Your task to perform on an android device: Search for the best rated tool bag on Lowe's. Image 0: 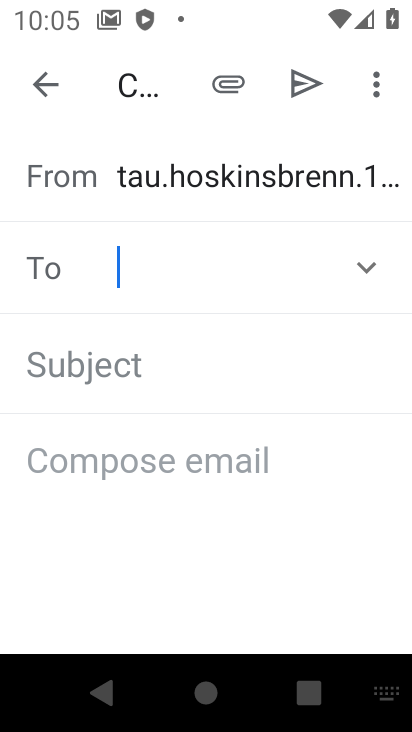
Step 0: press home button
Your task to perform on an android device: Search for the best rated tool bag on Lowe's. Image 1: 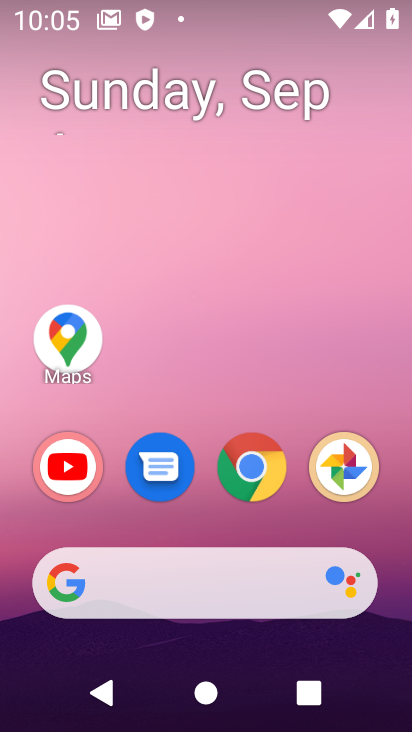
Step 1: click (257, 468)
Your task to perform on an android device: Search for the best rated tool bag on Lowe's. Image 2: 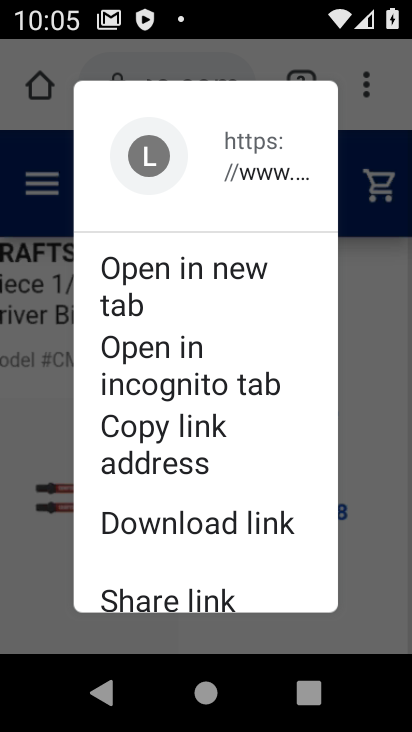
Step 2: click (380, 274)
Your task to perform on an android device: Search for the best rated tool bag on Lowe's. Image 3: 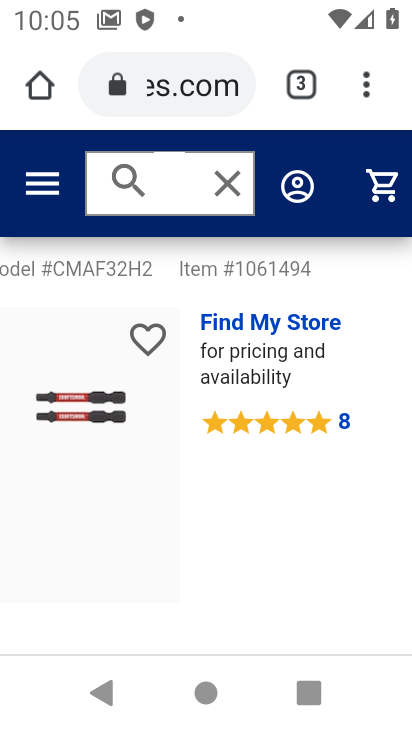
Step 3: click (164, 81)
Your task to perform on an android device: Search for the best rated tool bag on Lowe's. Image 4: 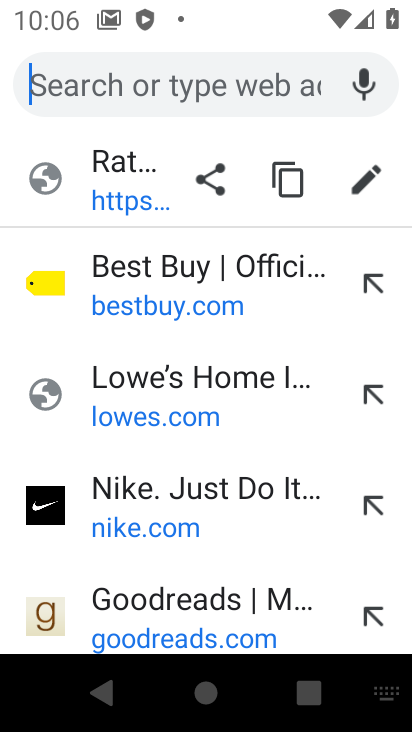
Step 4: click (172, 424)
Your task to perform on an android device: Search for the best rated tool bag on Lowe's. Image 5: 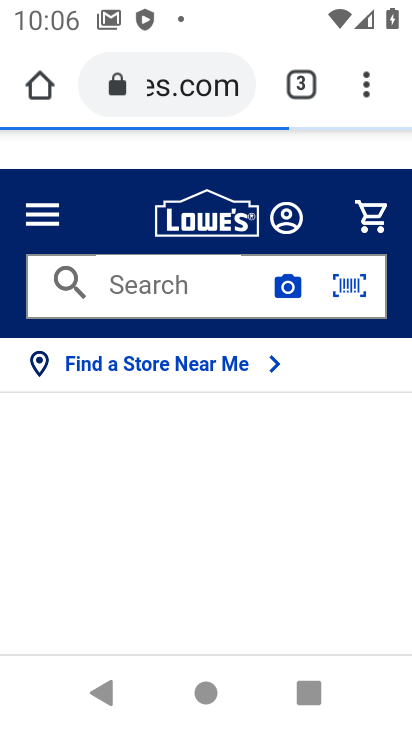
Step 5: click (199, 289)
Your task to perform on an android device: Search for the best rated tool bag on Lowe's. Image 6: 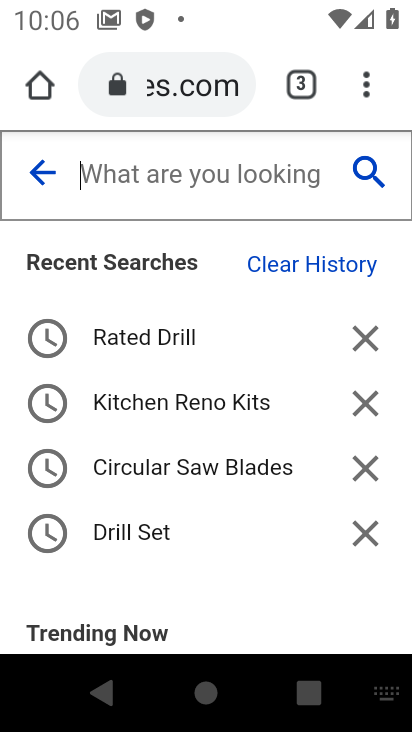
Step 6: type "tool bag"
Your task to perform on an android device: Search for the best rated tool bag on Lowe's. Image 7: 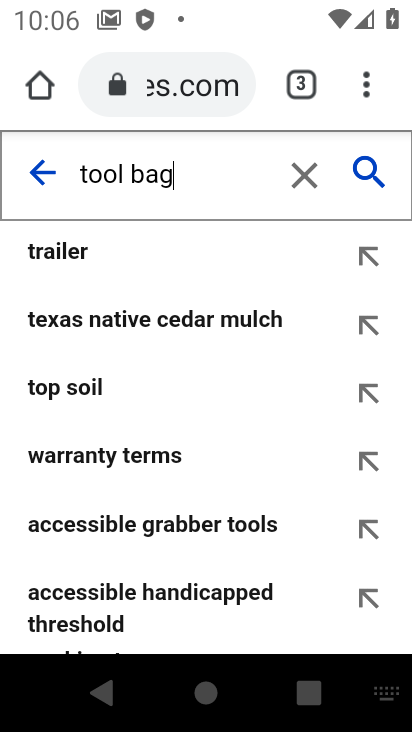
Step 7: type ""
Your task to perform on an android device: Search for the best rated tool bag on Lowe's. Image 8: 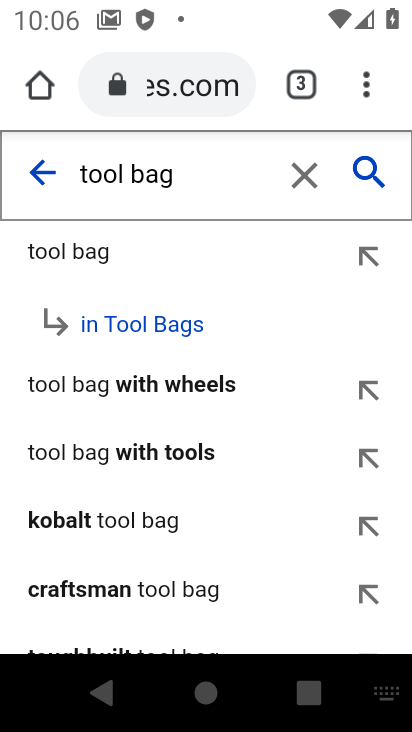
Step 8: click (142, 318)
Your task to perform on an android device: Search for the best rated tool bag on Lowe's. Image 9: 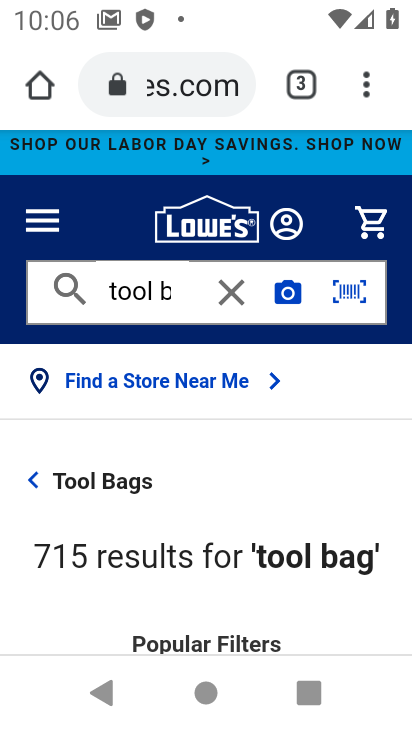
Step 9: drag from (299, 577) to (336, 257)
Your task to perform on an android device: Search for the best rated tool bag on Lowe's. Image 10: 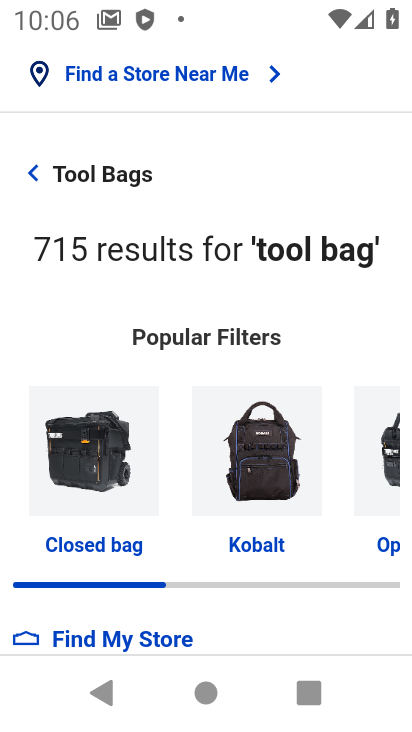
Step 10: click (177, 334)
Your task to perform on an android device: Search for the best rated tool bag on Lowe's. Image 11: 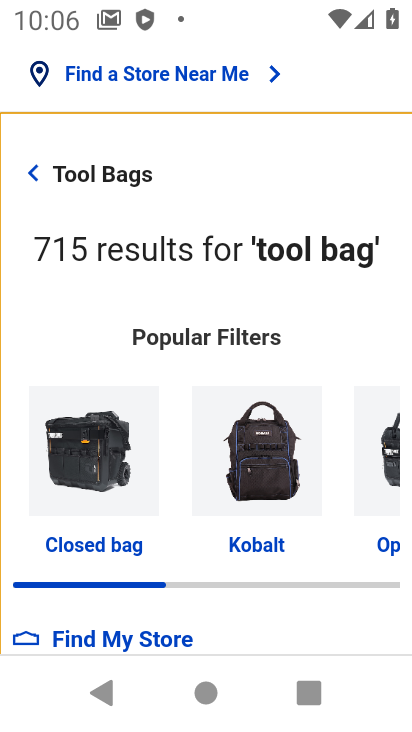
Step 11: drag from (295, 511) to (326, 152)
Your task to perform on an android device: Search for the best rated tool bag on Lowe's. Image 12: 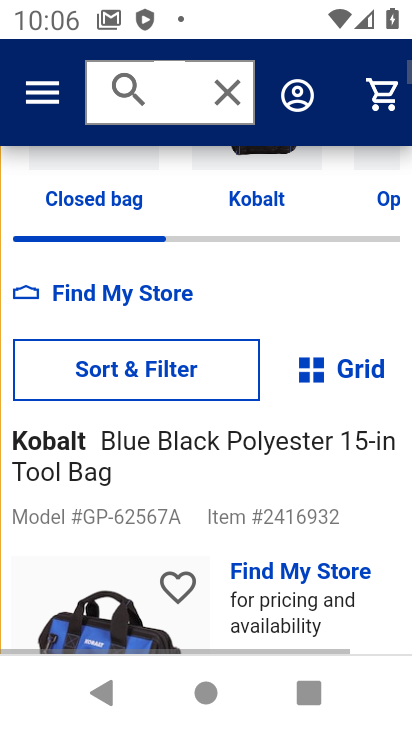
Step 12: click (166, 371)
Your task to perform on an android device: Search for the best rated tool bag on Lowe's. Image 13: 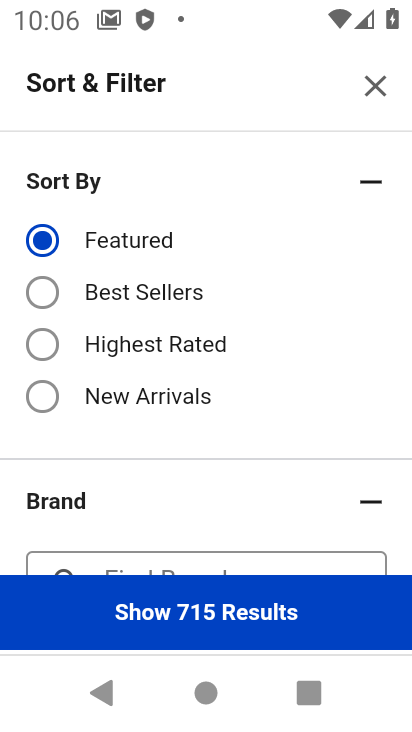
Step 13: click (48, 340)
Your task to perform on an android device: Search for the best rated tool bag on Lowe's. Image 14: 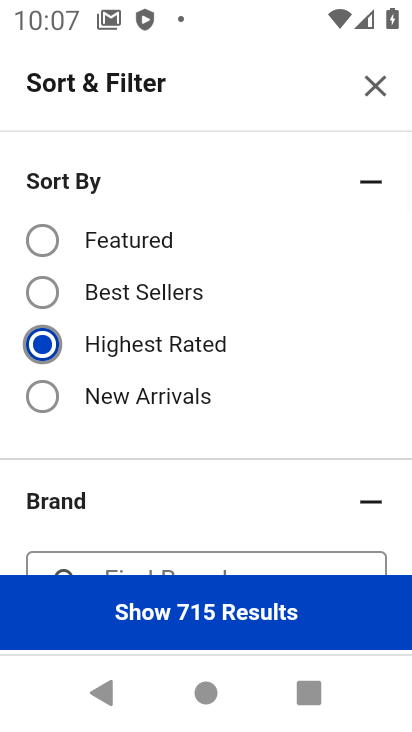
Step 14: drag from (268, 460) to (279, 164)
Your task to perform on an android device: Search for the best rated tool bag on Lowe's. Image 15: 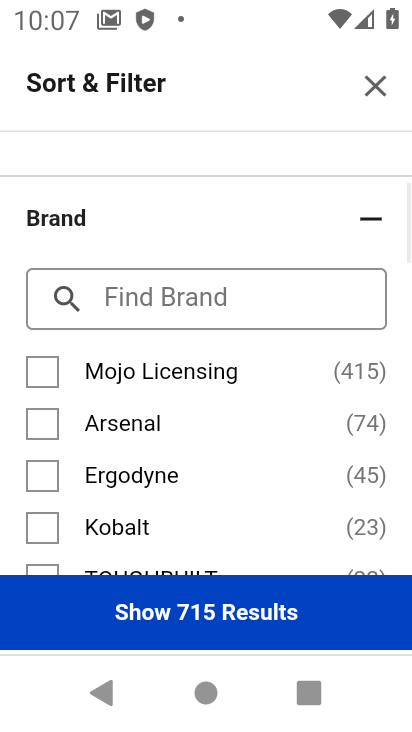
Step 15: drag from (251, 451) to (218, 66)
Your task to perform on an android device: Search for the best rated tool bag on Lowe's. Image 16: 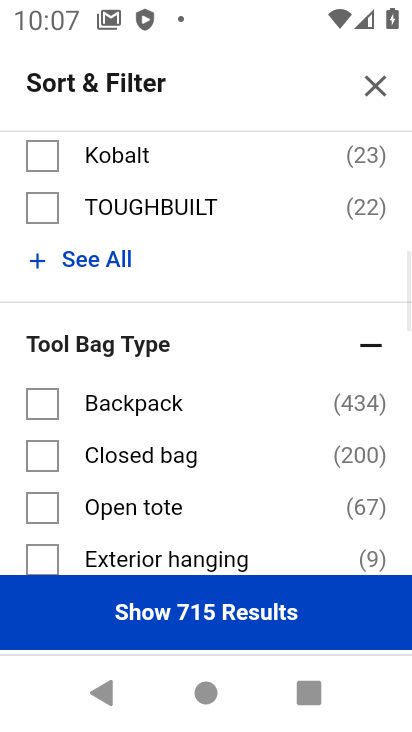
Step 16: drag from (206, 511) to (177, 164)
Your task to perform on an android device: Search for the best rated tool bag on Lowe's. Image 17: 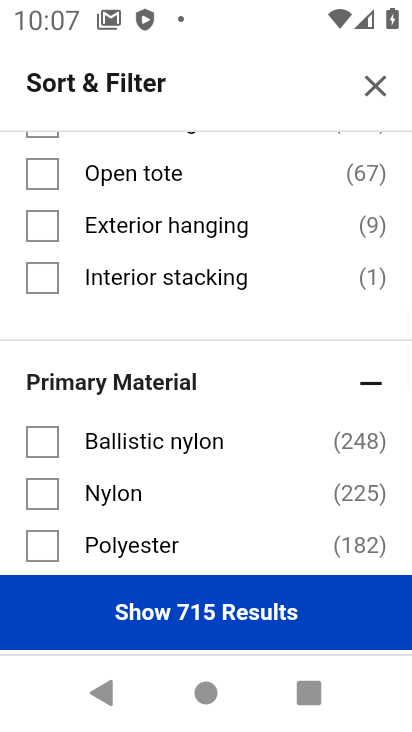
Step 17: drag from (213, 516) to (193, 187)
Your task to perform on an android device: Search for the best rated tool bag on Lowe's. Image 18: 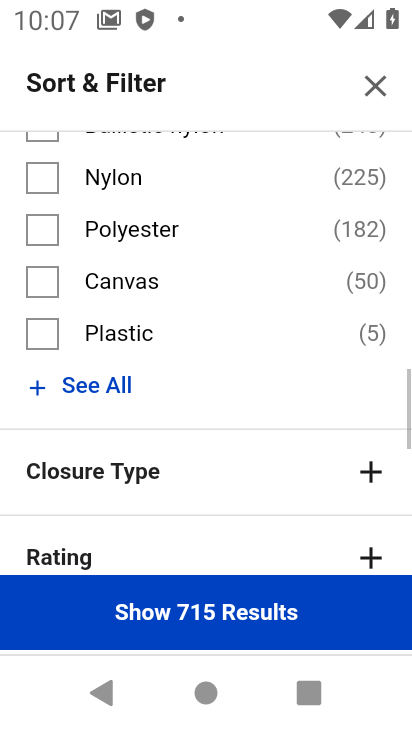
Step 18: drag from (218, 504) to (204, 169)
Your task to perform on an android device: Search for the best rated tool bag on Lowe's. Image 19: 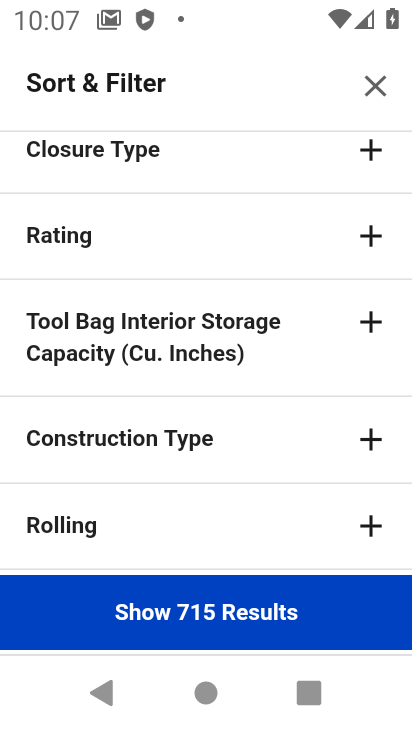
Step 19: click (375, 236)
Your task to perform on an android device: Search for the best rated tool bag on Lowe's. Image 20: 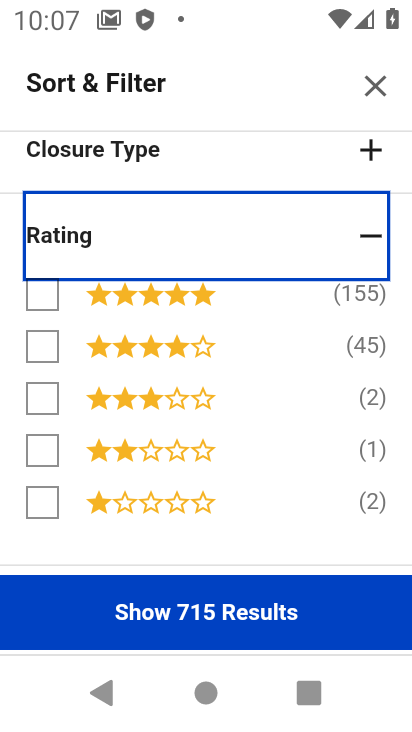
Step 20: click (47, 291)
Your task to perform on an android device: Search for the best rated tool bag on Lowe's. Image 21: 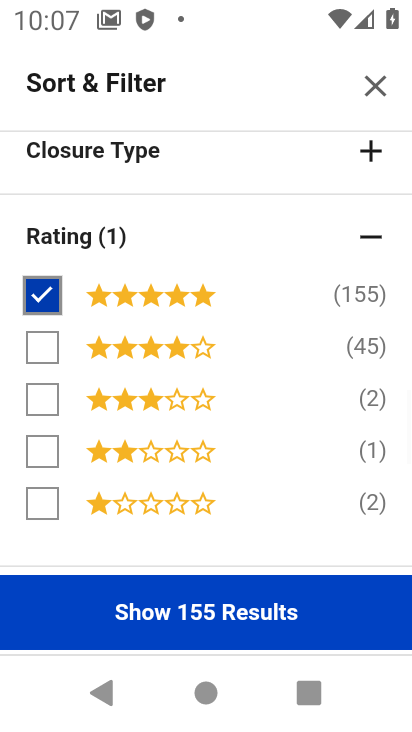
Step 21: click (219, 602)
Your task to perform on an android device: Search for the best rated tool bag on Lowe's. Image 22: 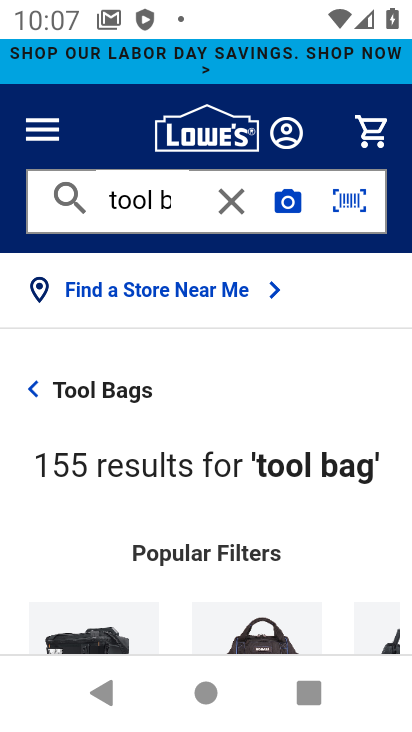
Step 22: drag from (341, 576) to (319, 187)
Your task to perform on an android device: Search for the best rated tool bag on Lowe's. Image 23: 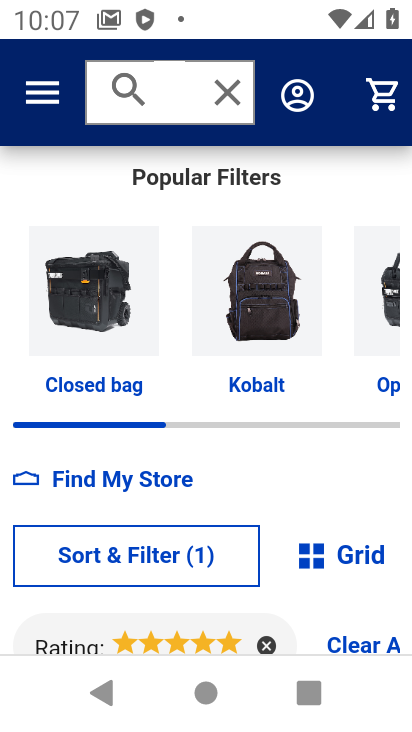
Step 23: drag from (311, 597) to (334, 193)
Your task to perform on an android device: Search for the best rated tool bag on Lowe's. Image 24: 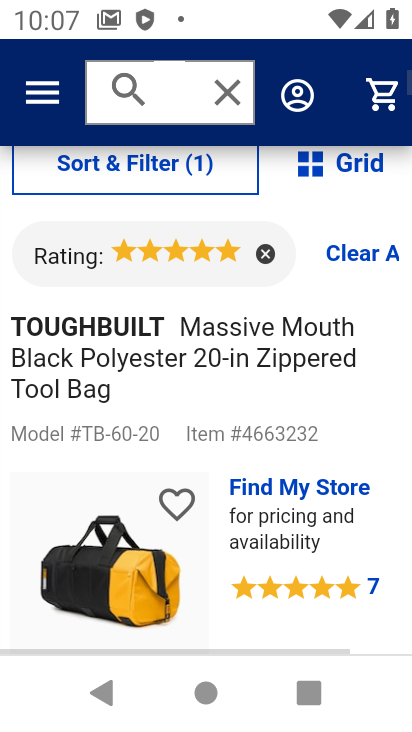
Step 24: drag from (253, 518) to (302, 146)
Your task to perform on an android device: Search for the best rated tool bag on Lowe's. Image 25: 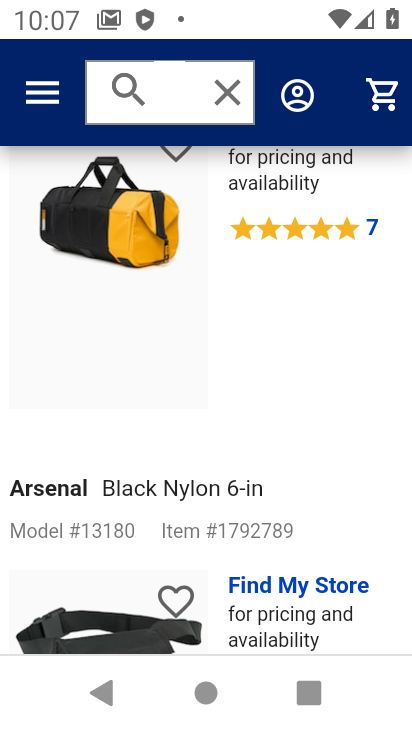
Step 25: drag from (244, 452) to (270, 161)
Your task to perform on an android device: Search for the best rated tool bag on Lowe's. Image 26: 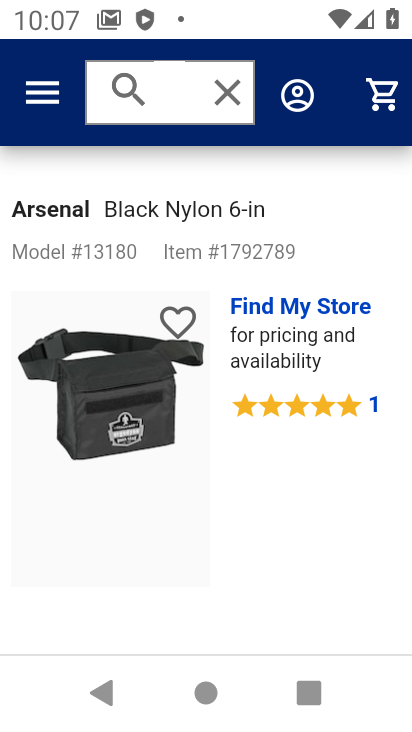
Step 26: drag from (186, 503) to (113, 183)
Your task to perform on an android device: Search for the best rated tool bag on Lowe's. Image 27: 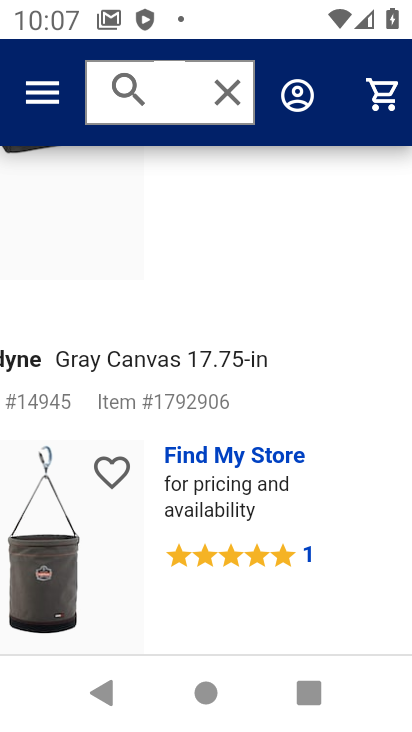
Step 27: drag from (255, 548) to (267, 258)
Your task to perform on an android device: Search for the best rated tool bag on Lowe's. Image 28: 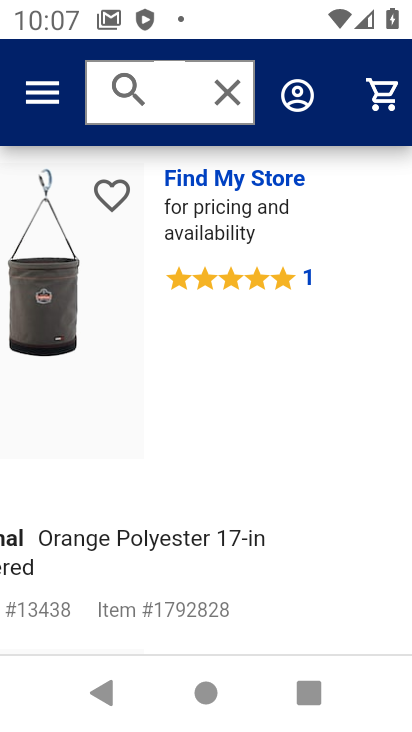
Step 28: drag from (288, 532) to (176, 217)
Your task to perform on an android device: Search for the best rated tool bag on Lowe's. Image 29: 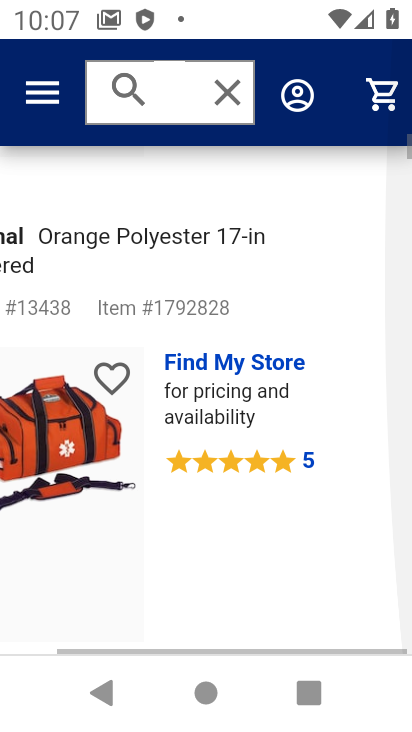
Step 29: drag from (222, 578) to (169, 209)
Your task to perform on an android device: Search for the best rated tool bag on Lowe's. Image 30: 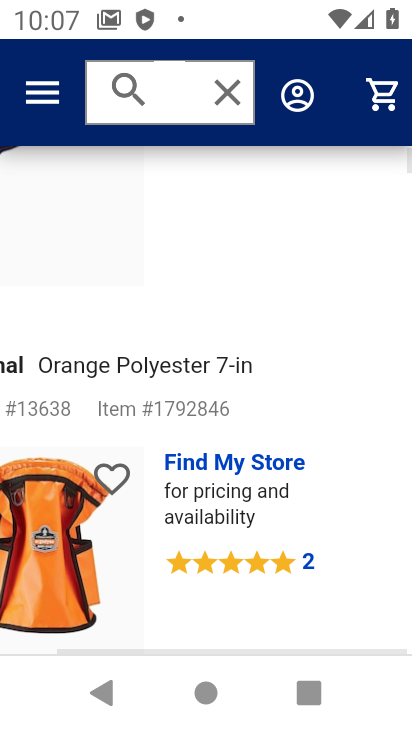
Step 30: drag from (112, 525) to (109, 233)
Your task to perform on an android device: Search for the best rated tool bag on Lowe's. Image 31: 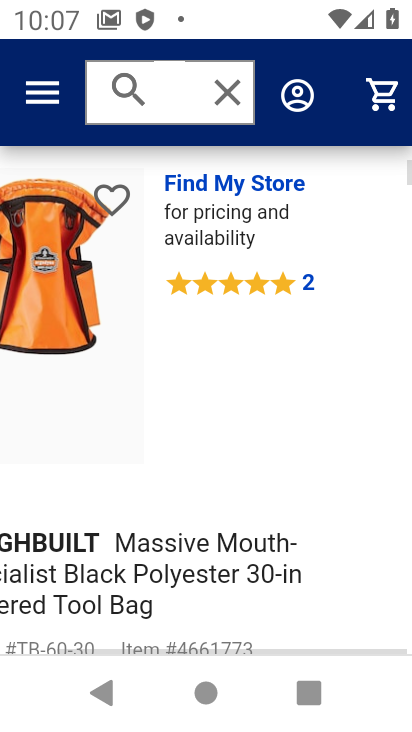
Step 31: drag from (262, 463) to (248, 260)
Your task to perform on an android device: Search for the best rated tool bag on Lowe's. Image 32: 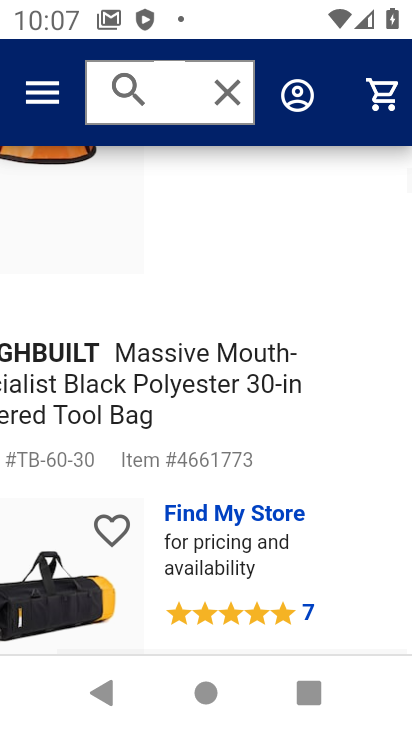
Step 32: drag from (286, 560) to (240, 297)
Your task to perform on an android device: Search for the best rated tool bag on Lowe's. Image 33: 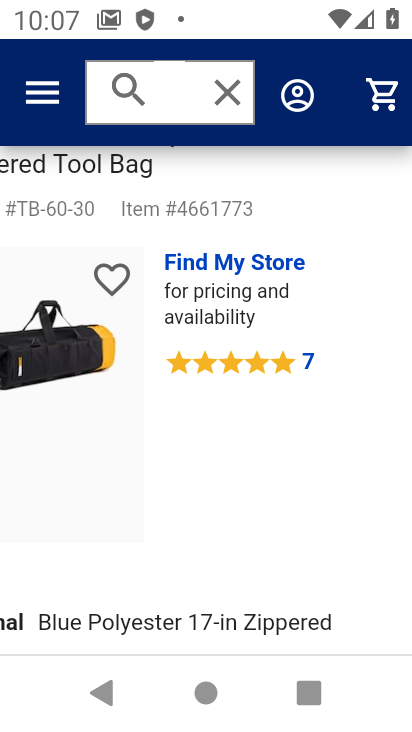
Step 33: drag from (232, 614) to (176, 299)
Your task to perform on an android device: Search for the best rated tool bag on Lowe's. Image 34: 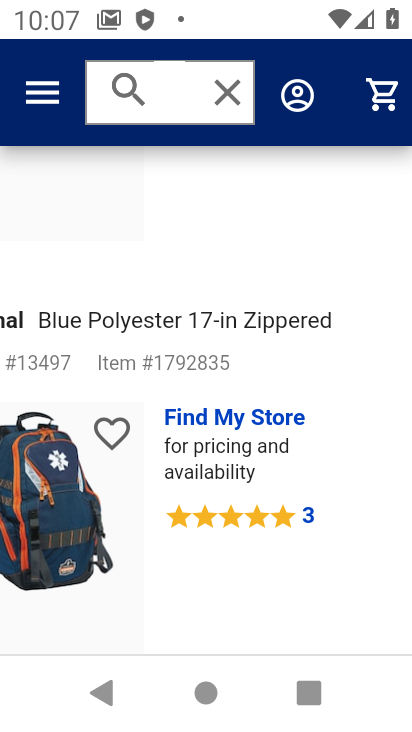
Step 34: drag from (158, 569) to (177, 286)
Your task to perform on an android device: Search for the best rated tool bag on Lowe's. Image 35: 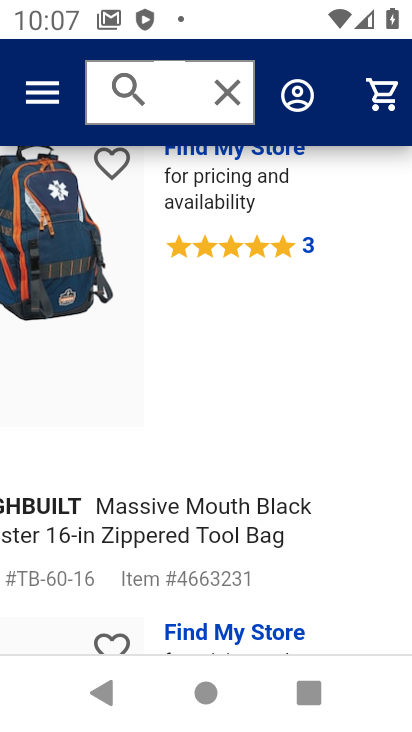
Step 35: drag from (259, 573) to (256, 87)
Your task to perform on an android device: Search for the best rated tool bag on Lowe's. Image 36: 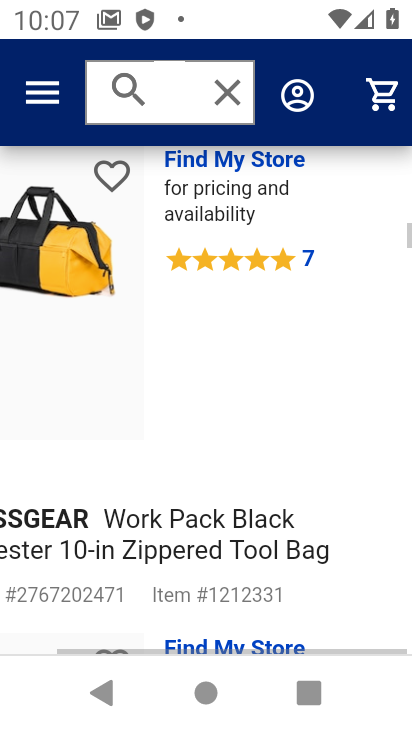
Step 36: drag from (273, 516) to (266, 89)
Your task to perform on an android device: Search for the best rated tool bag on Lowe's. Image 37: 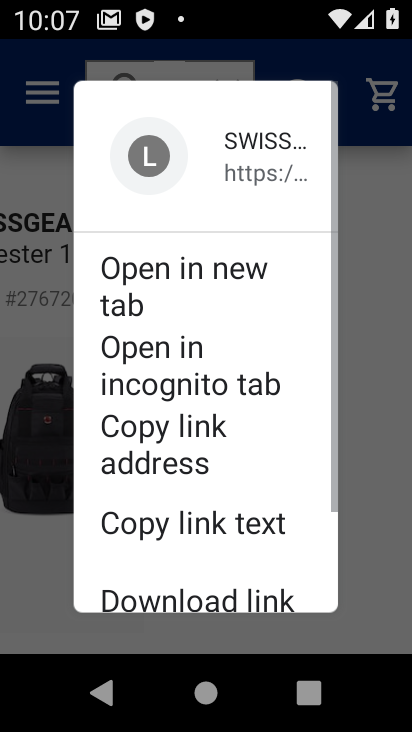
Step 37: click (386, 456)
Your task to perform on an android device: Search for the best rated tool bag on Lowe's. Image 38: 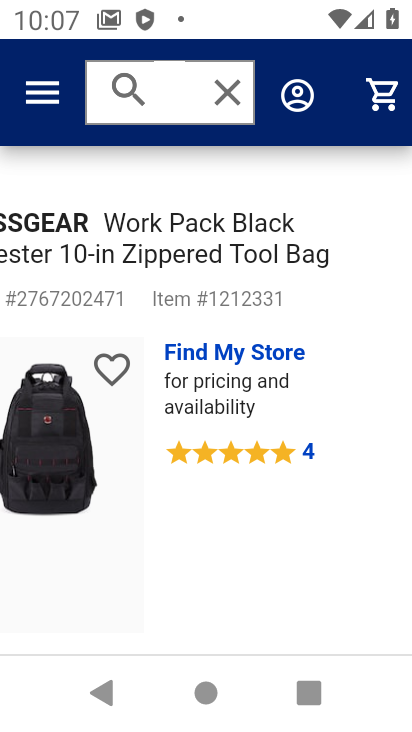
Step 38: task complete